Your task to perform on an android device: Open Chrome and go to settings Image 0: 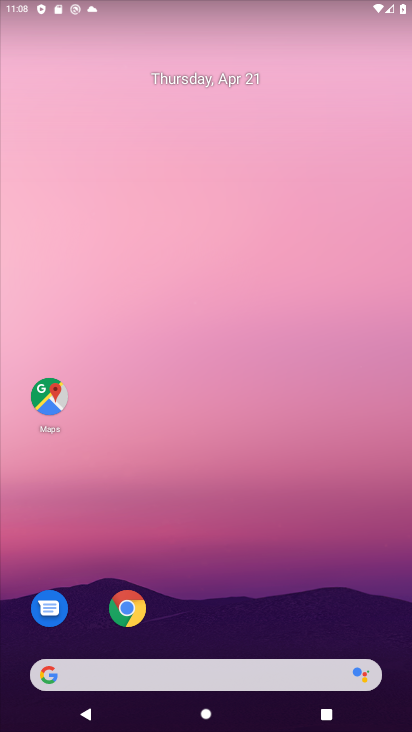
Step 0: click (124, 608)
Your task to perform on an android device: Open Chrome and go to settings Image 1: 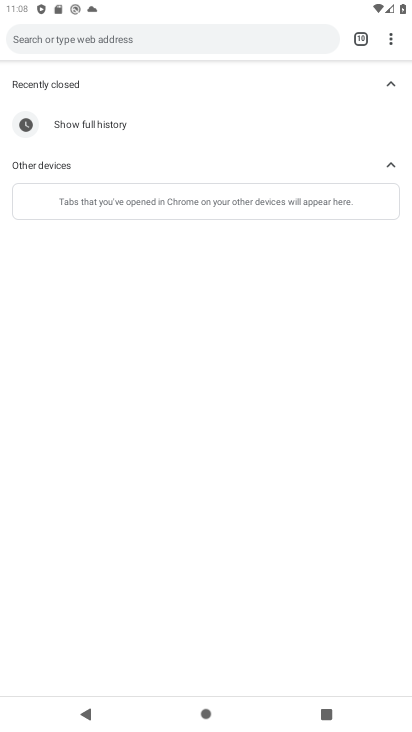
Step 1: task complete